Your task to perform on an android device: open chrome privacy settings Image 0: 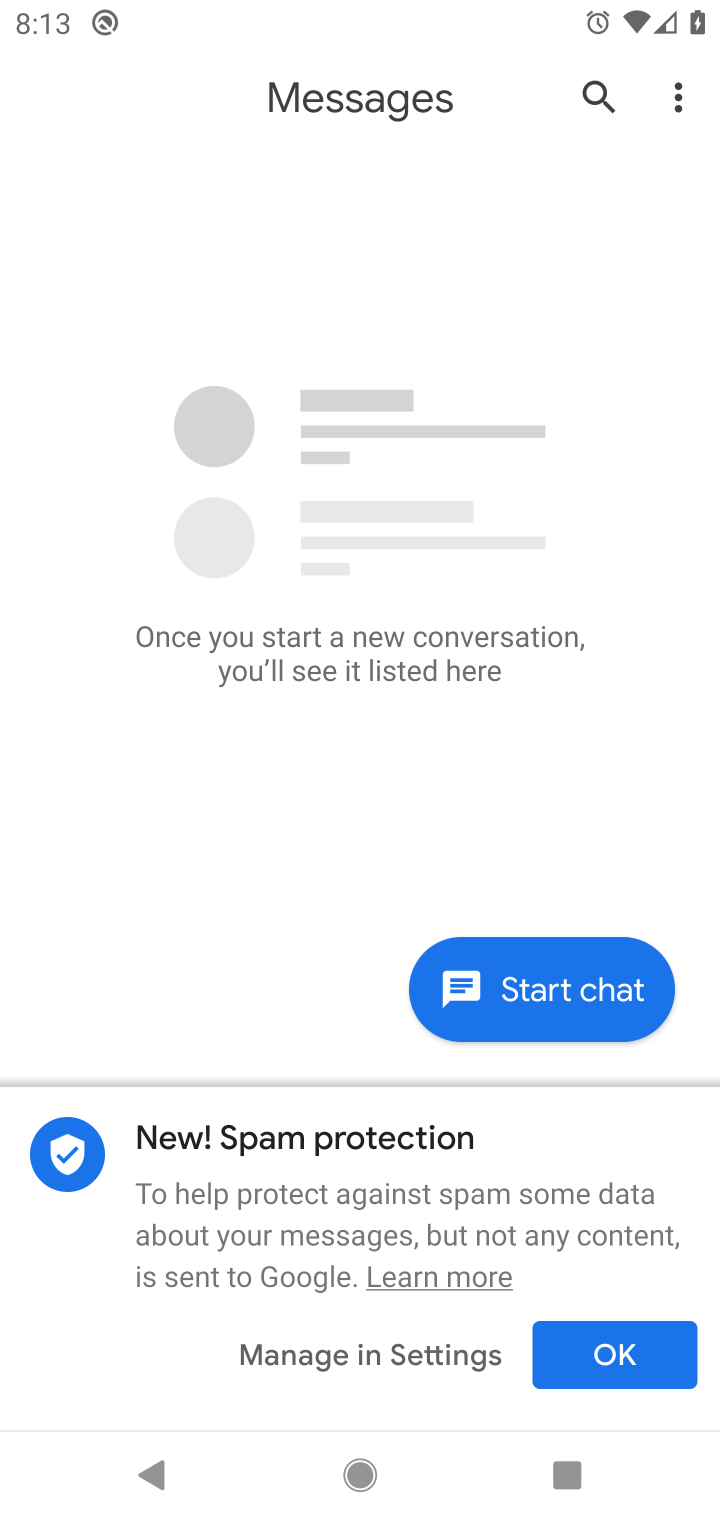
Step 0: press home button
Your task to perform on an android device: open chrome privacy settings Image 1: 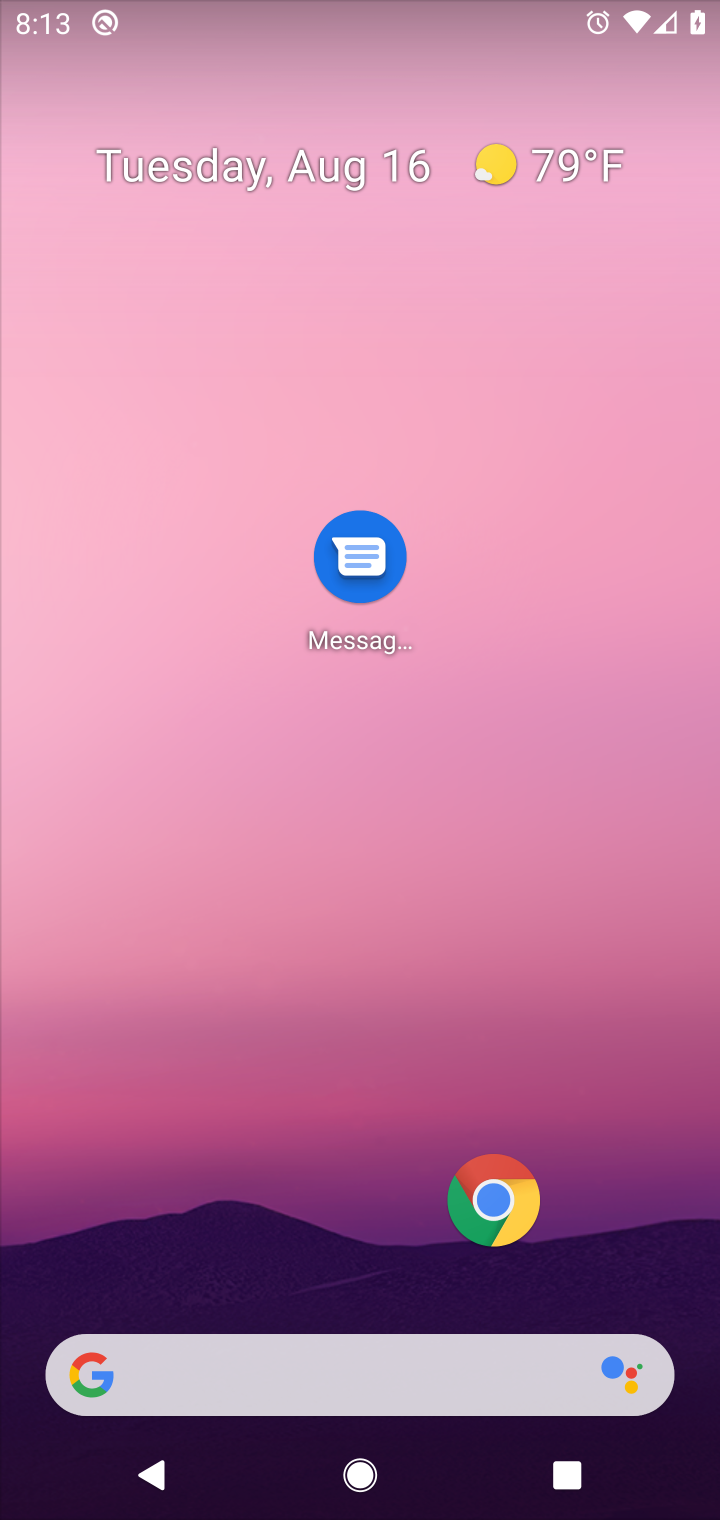
Step 1: click (485, 1212)
Your task to perform on an android device: open chrome privacy settings Image 2: 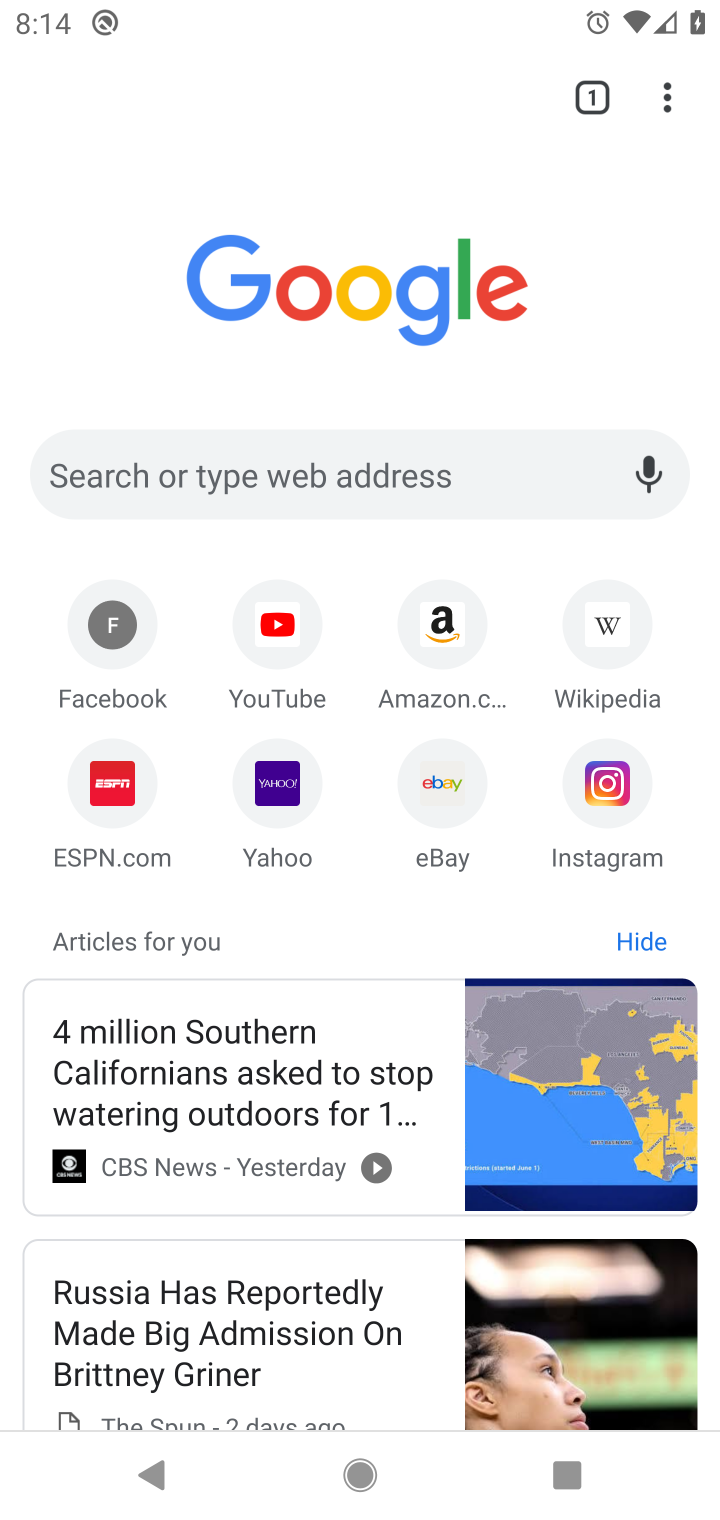
Step 2: click (672, 118)
Your task to perform on an android device: open chrome privacy settings Image 3: 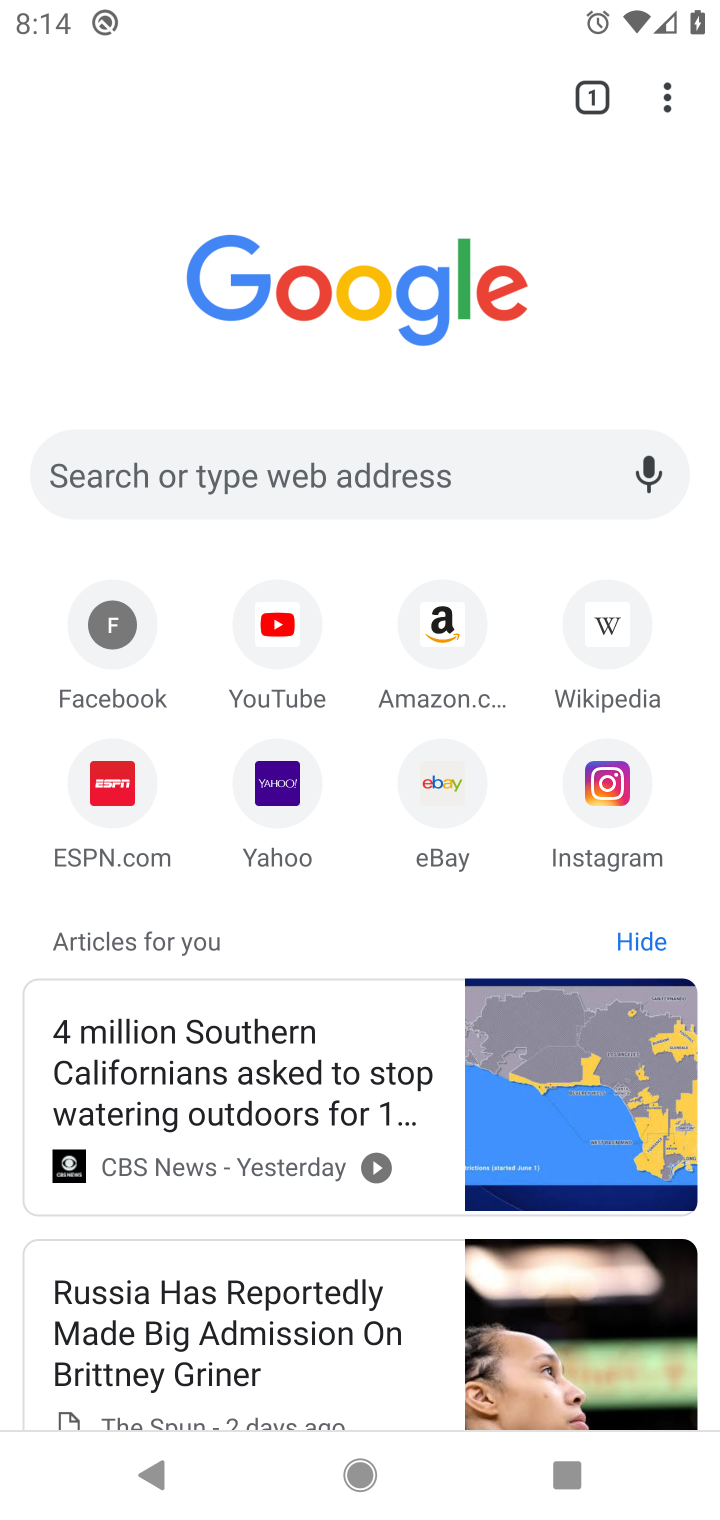
Step 3: click (670, 101)
Your task to perform on an android device: open chrome privacy settings Image 4: 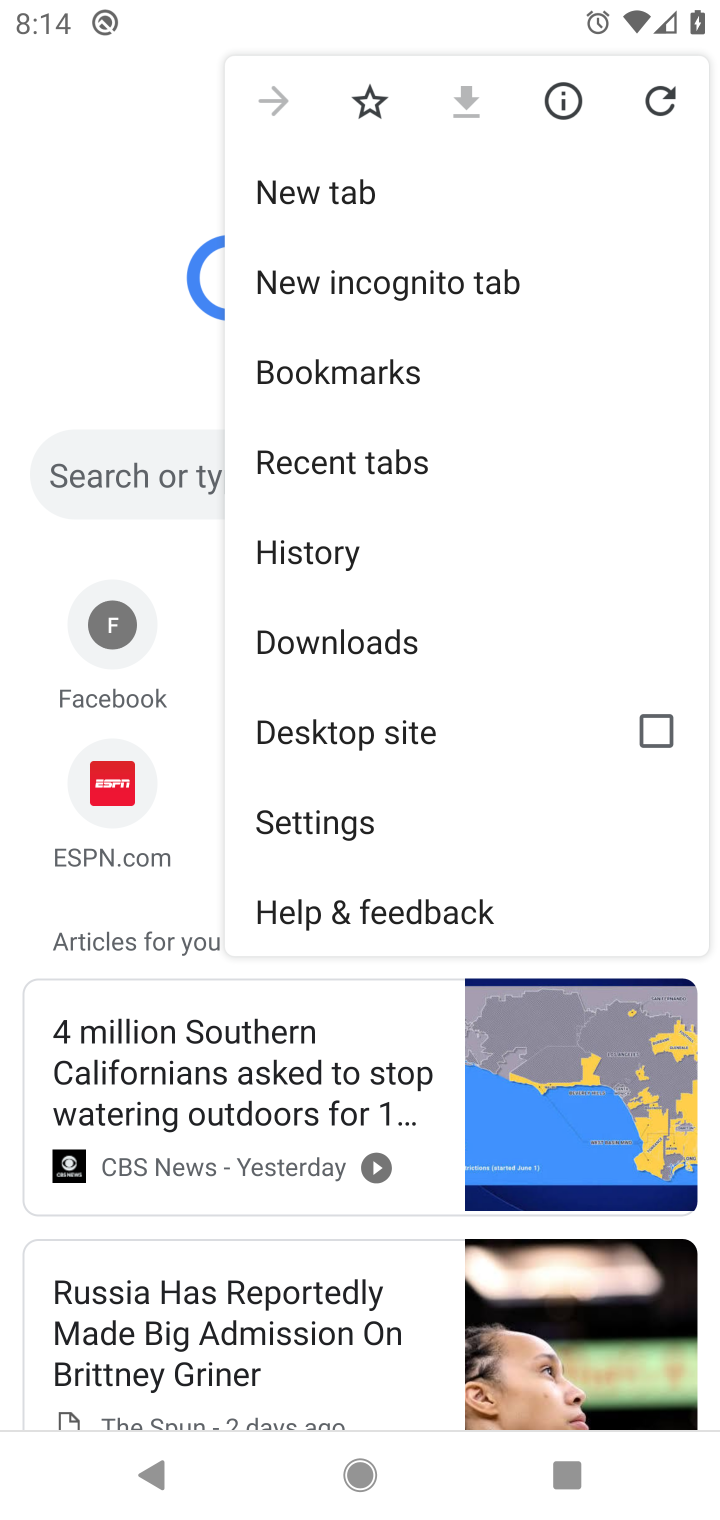
Step 4: click (351, 825)
Your task to perform on an android device: open chrome privacy settings Image 5: 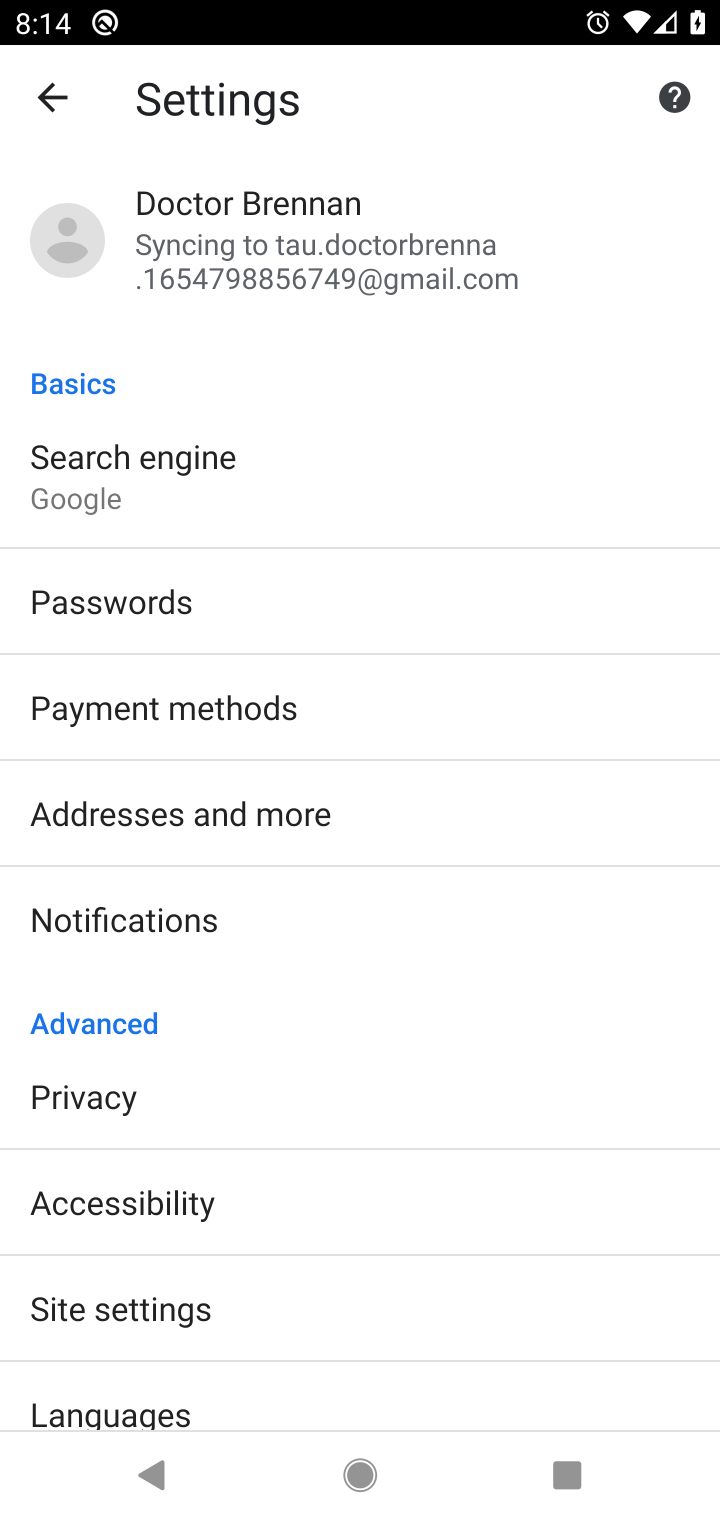
Step 5: click (85, 1106)
Your task to perform on an android device: open chrome privacy settings Image 6: 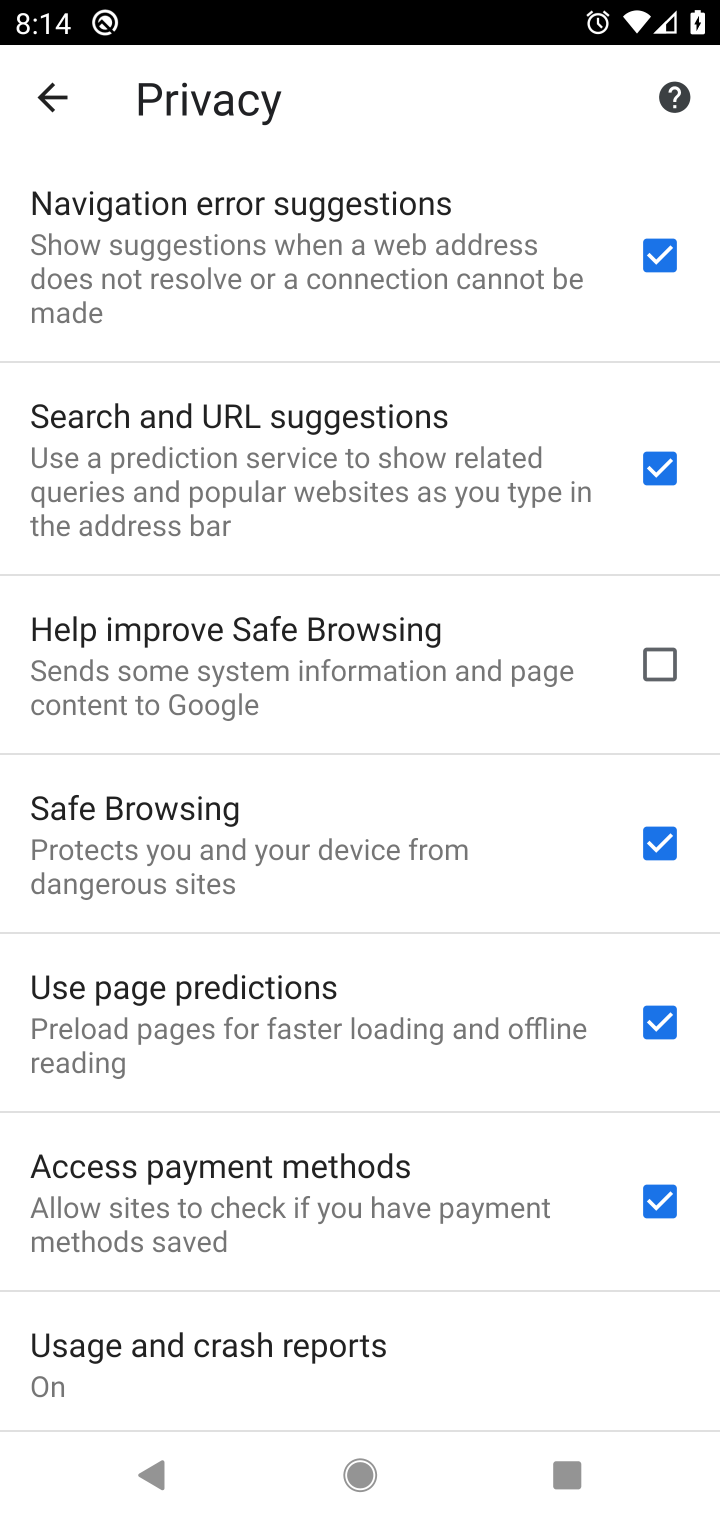
Step 6: task complete